Your task to perform on an android device: turn on improve location accuracy Image 0: 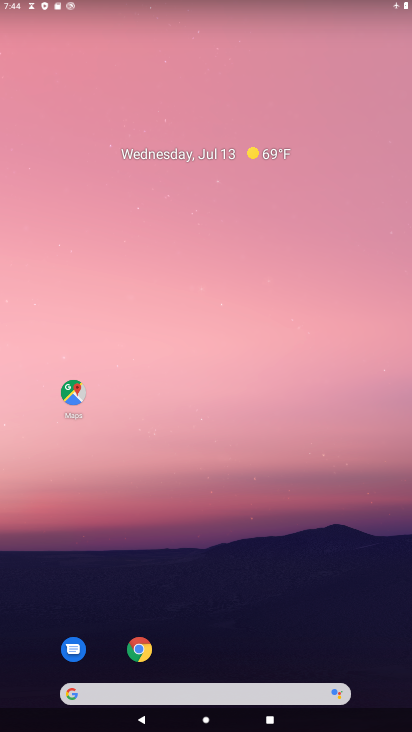
Step 0: drag from (167, 687) to (244, 332)
Your task to perform on an android device: turn on improve location accuracy Image 1: 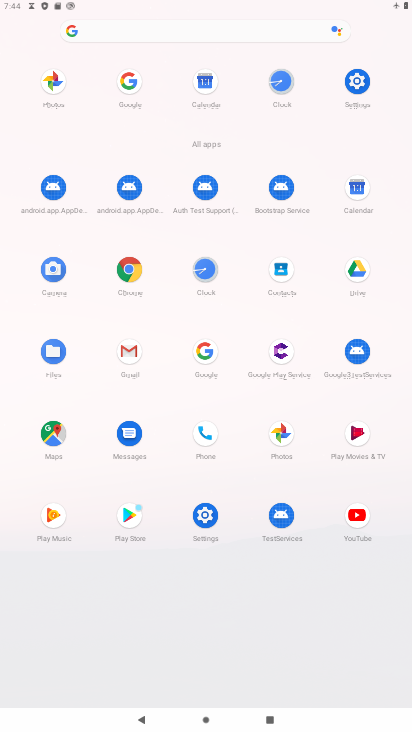
Step 1: click (351, 81)
Your task to perform on an android device: turn on improve location accuracy Image 2: 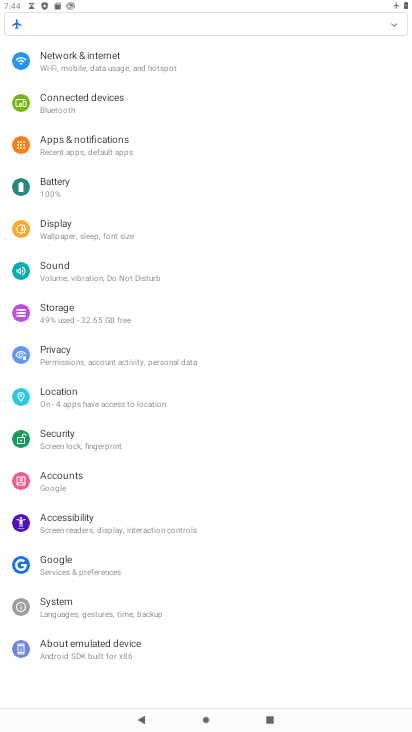
Step 2: click (77, 406)
Your task to perform on an android device: turn on improve location accuracy Image 3: 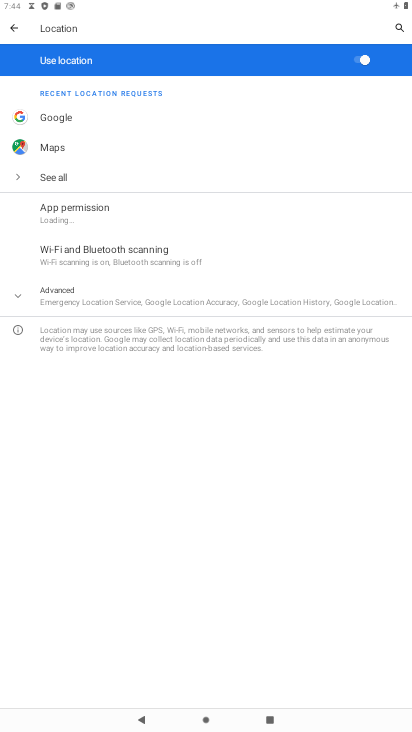
Step 3: click (86, 295)
Your task to perform on an android device: turn on improve location accuracy Image 4: 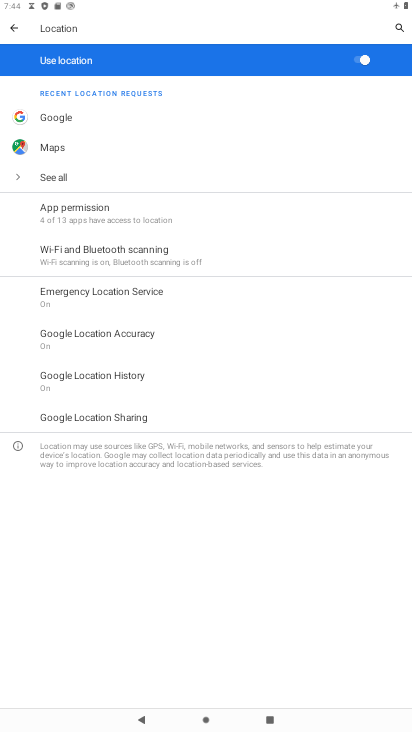
Step 4: click (79, 337)
Your task to perform on an android device: turn on improve location accuracy Image 5: 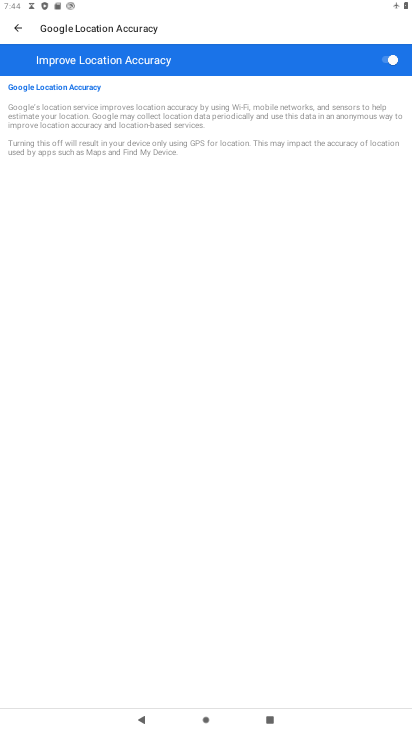
Step 5: task complete